Your task to perform on an android device: Open maps Image 0: 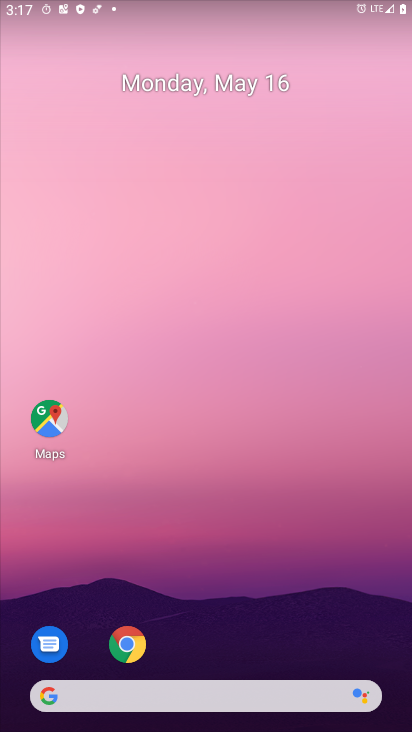
Step 0: drag from (187, 636) to (286, 123)
Your task to perform on an android device: Open maps Image 1: 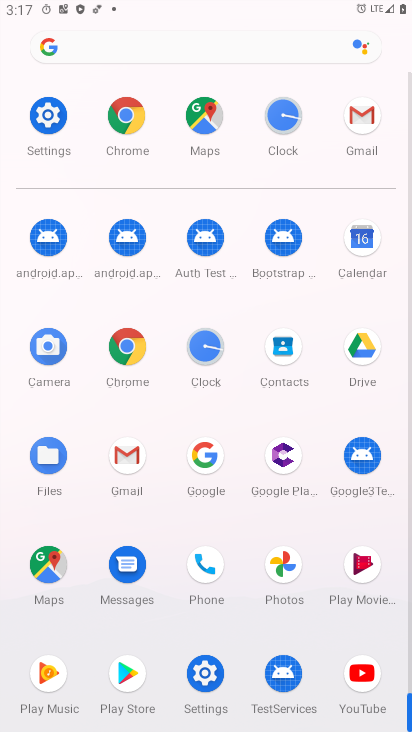
Step 1: click (66, 570)
Your task to perform on an android device: Open maps Image 2: 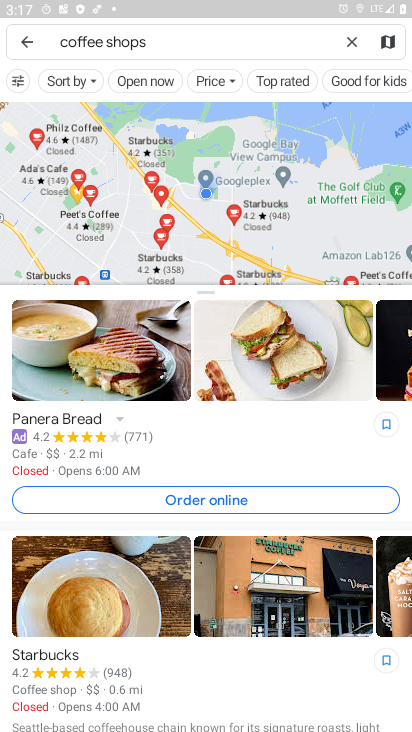
Step 2: task complete